Your task to perform on an android device: Is it going to rain today? Image 0: 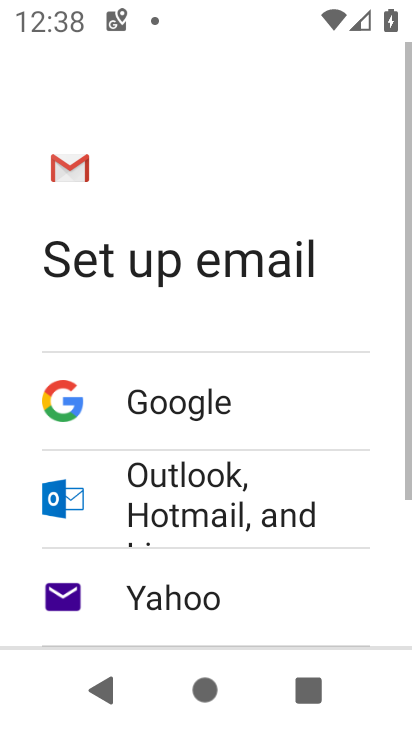
Step 0: press back button
Your task to perform on an android device: Is it going to rain today? Image 1: 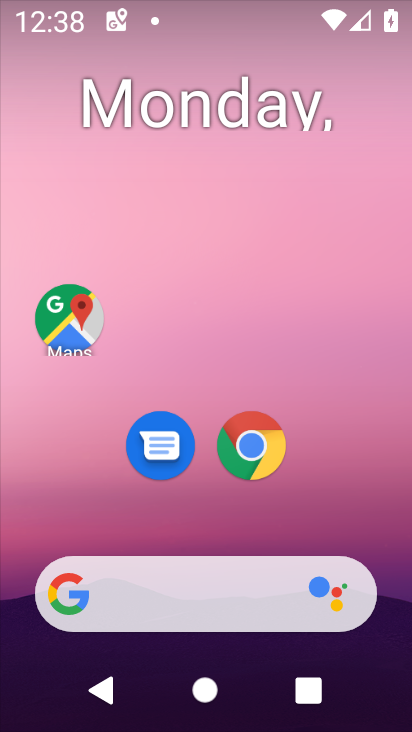
Step 1: click (252, 443)
Your task to perform on an android device: Is it going to rain today? Image 2: 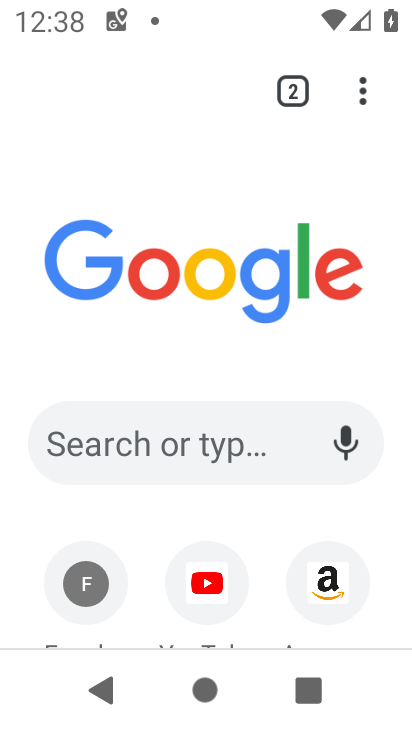
Step 2: click (194, 425)
Your task to perform on an android device: Is it going to rain today? Image 3: 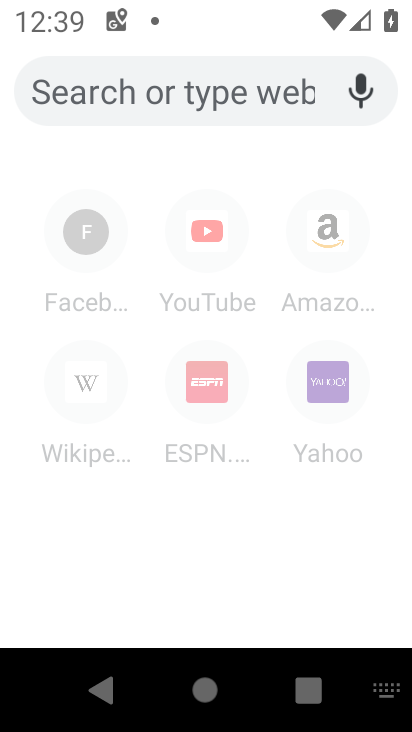
Step 3: type "Is it going to rain today"
Your task to perform on an android device: Is it going to rain today? Image 4: 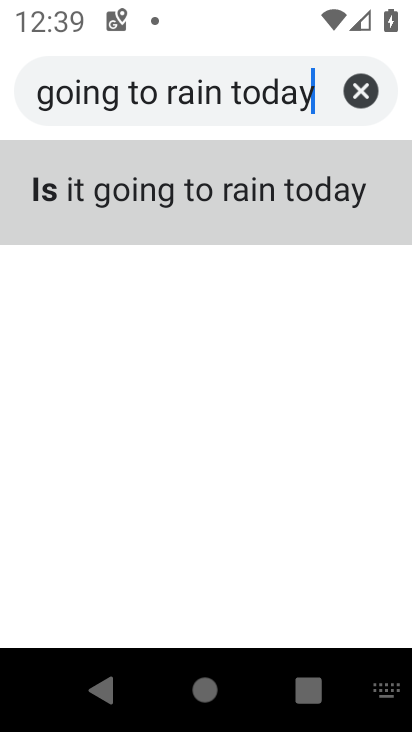
Step 4: type ""
Your task to perform on an android device: Is it going to rain today? Image 5: 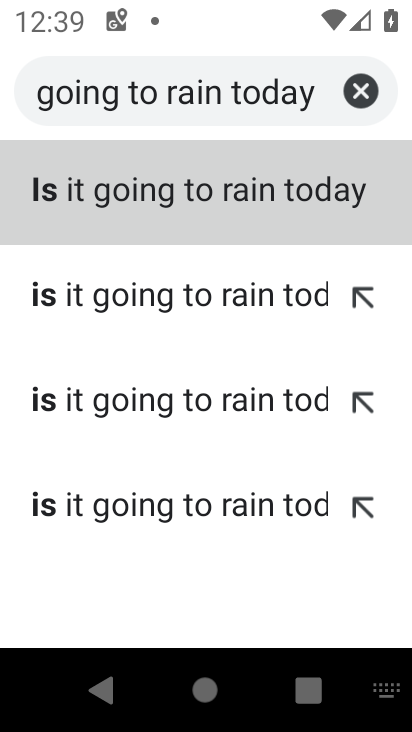
Step 5: click (175, 183)
Your task to perform on an android device: Is it going to rain today? Image 6: 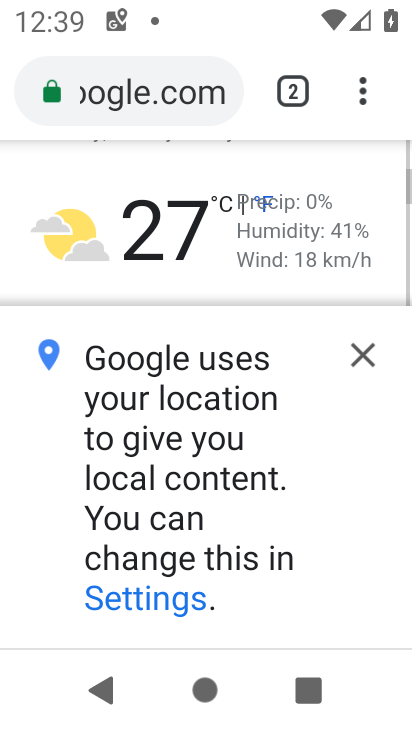
Step 6: click (364, 348)
Your task to perform on an android device: Is it going to rain today? Image 7: 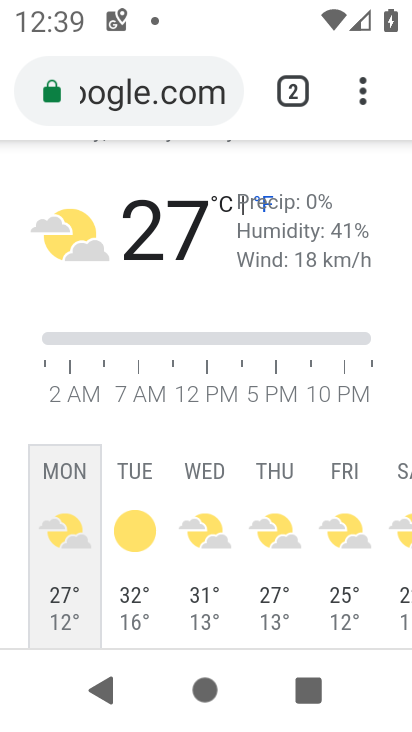
Step 7: task complete